Your task to perform on an android device: turn off airplane mode Image 0: 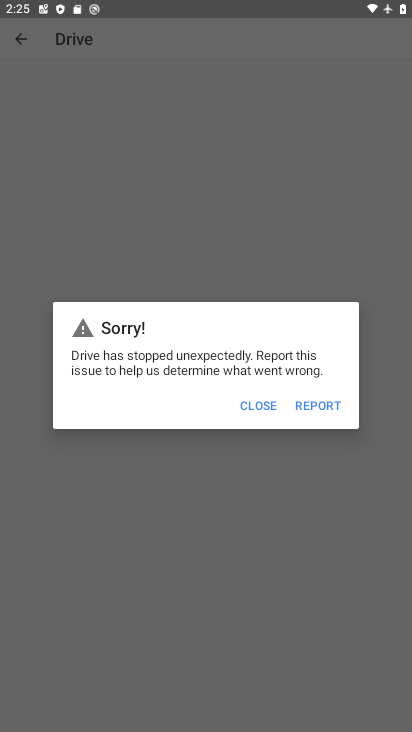
Step 0: click (255, 393)
Your task to perform on an android device: turn off airplane mode Image 1: 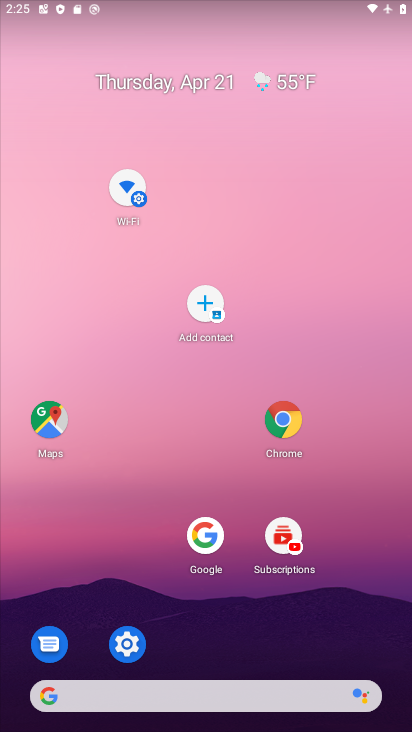
Step 1: drag from (225, 491) to (166, 24)
Your task to perform on an android device: turn off airplane mode Image 2: 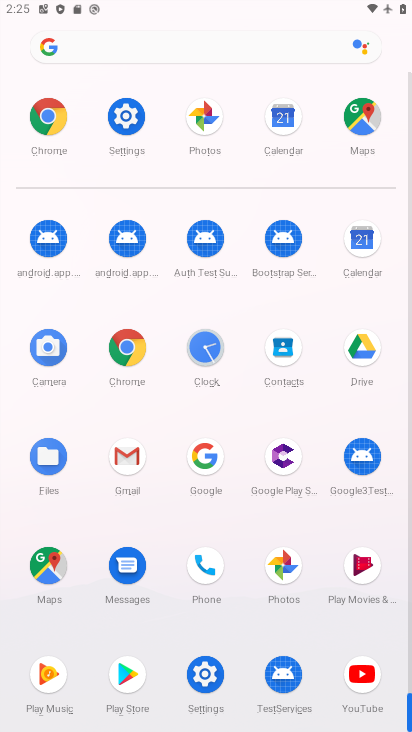
Step 2: click (120, 123)
Your task to perform on an android device: turn off airplane mode Image 3: 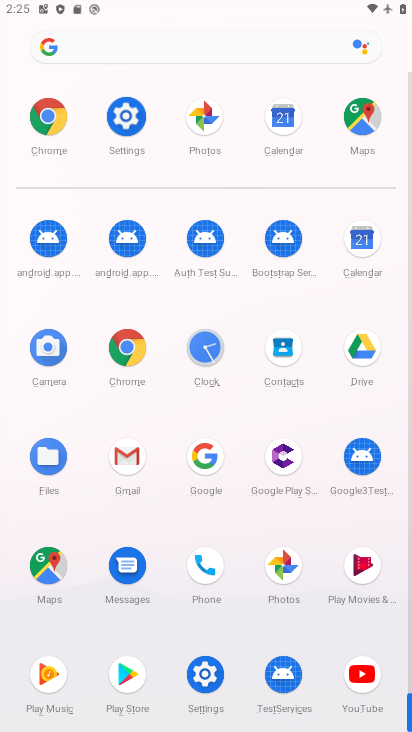
Step 3: click (120, 123)
Your task to perform on an android device: turn off airplane mode Image 4: 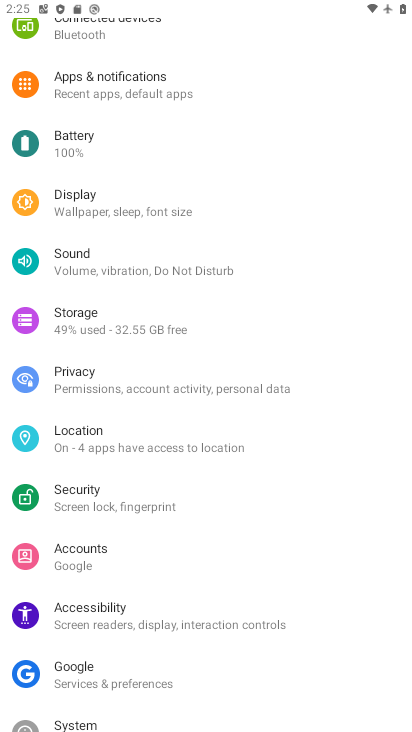
Step 4: drag from (125, 384) to (125, 488)
Your task to perform on an android device: turn off airplane mode Image 5: 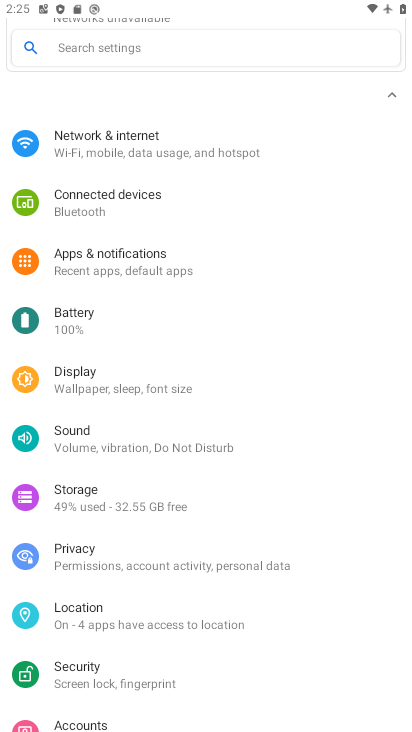
Step 5: drag from (183, 447) to (212, 581)
Your task to perform on an android device: turn off airplane mode Image 6: 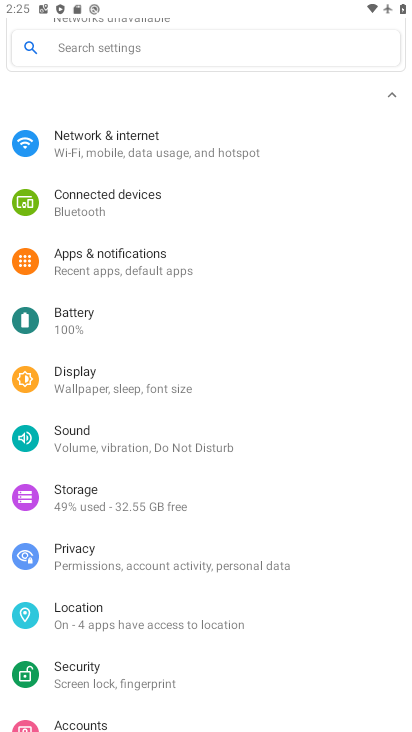
Step 6: click (86, 146)
Your task to perform on an android device: turn off airplane mode Image 7: 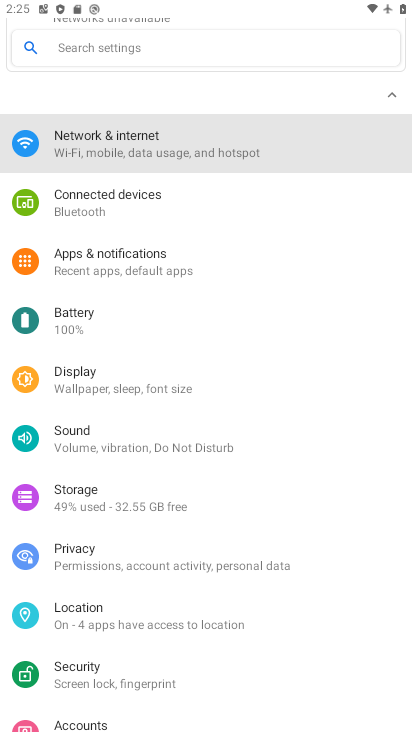
Step 7: click (86, 144)
Your task to perform on an android device: turn off airplane mode Image 8: 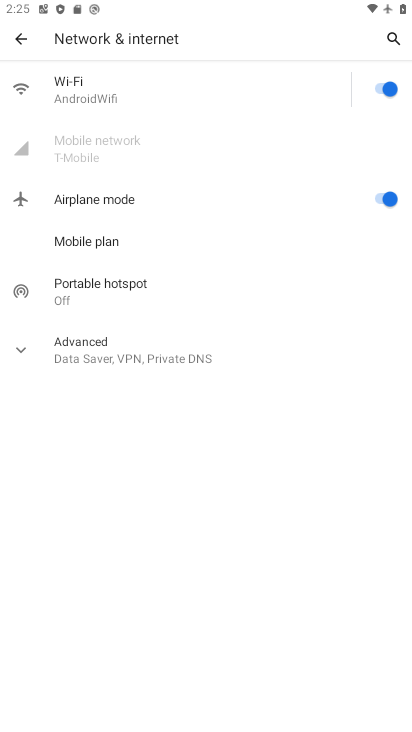
Step 8: click (382, 196)
Your task to perform on an android device: turn off airplane mode Image 9: 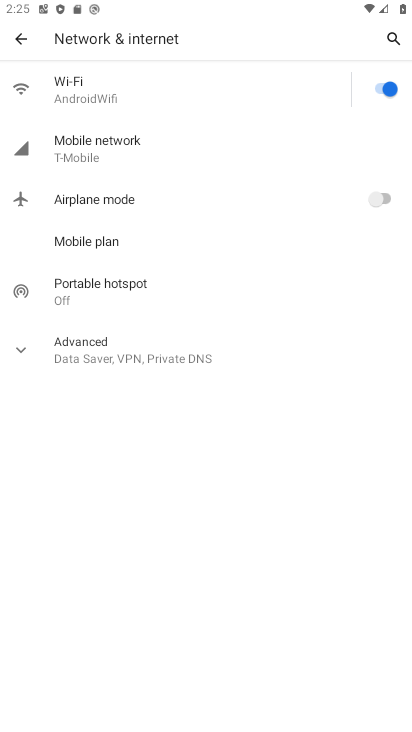
Step 9: task complete